Your task to perform on an android device: Show me popular games on the Play Store Image 0: 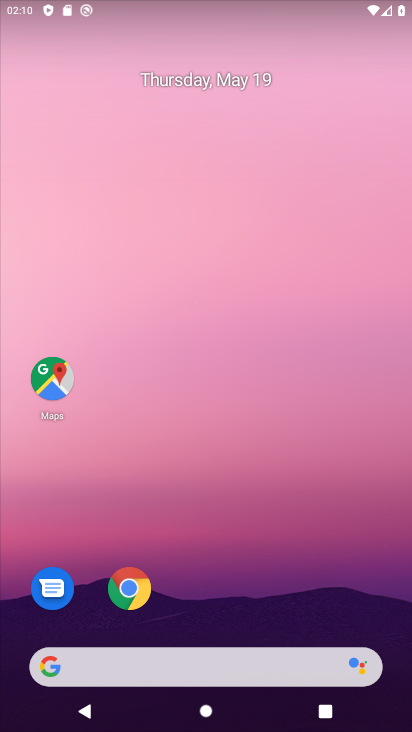
Step 0: drag from (200, 611) to (231, 123)
Your task to perform on an android device: Show me popular games on the Play Store Image 1: 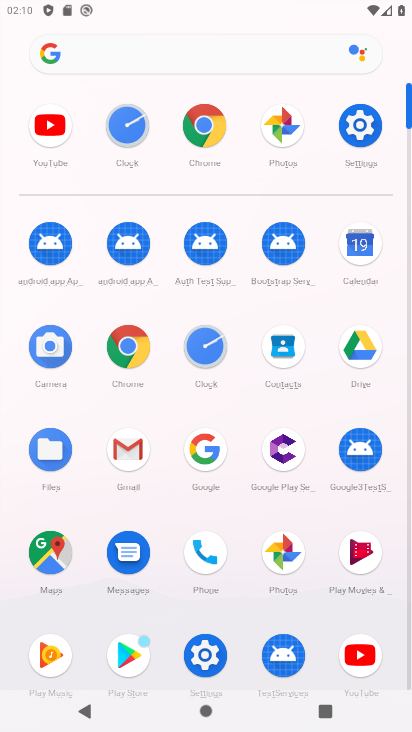
Step 1: click (131, 657)
Your task to perform on an android device: Show me popular games on the Play Store Image 2: 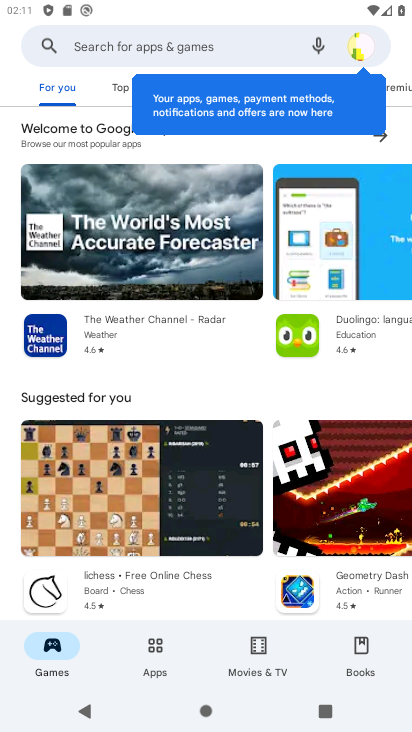
Step 2: drag from (208, 364) to (228, 43)
Your task to perform on an android device: Show me popular games on the Play Store Image 3: 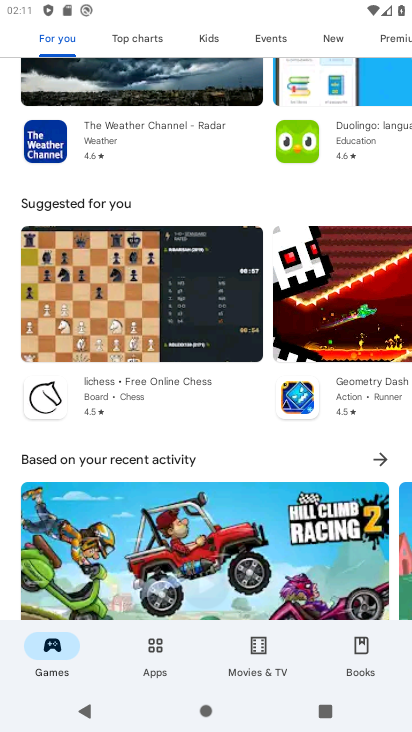
Step 3: drag from (248, 524) to (257, 110)
Your task to perform on an android device: Show me popular games on the Play Store Image 4: 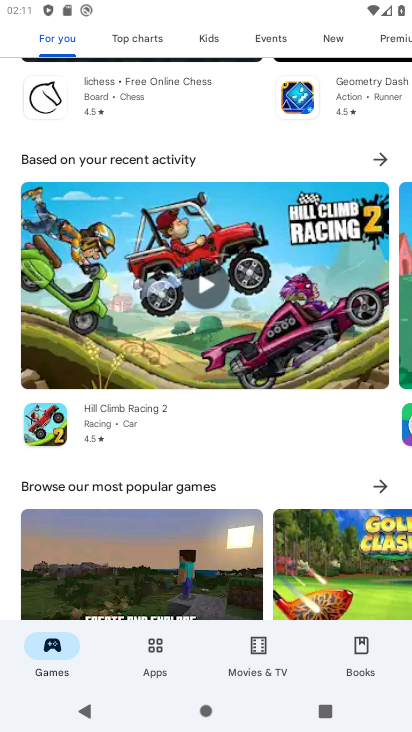
Step 4: click (355, 476)
Your task to perform on an android device: Show me popular games on the Play Store Image 5: 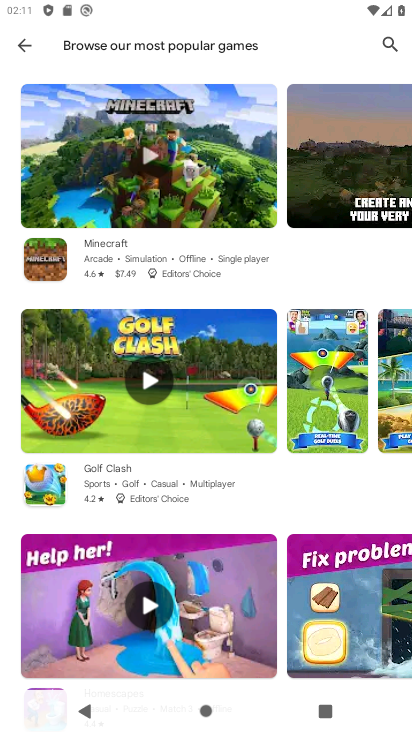
Step 5: task complete